Your task to perform on an android device: change the clock display to digital Image 0: 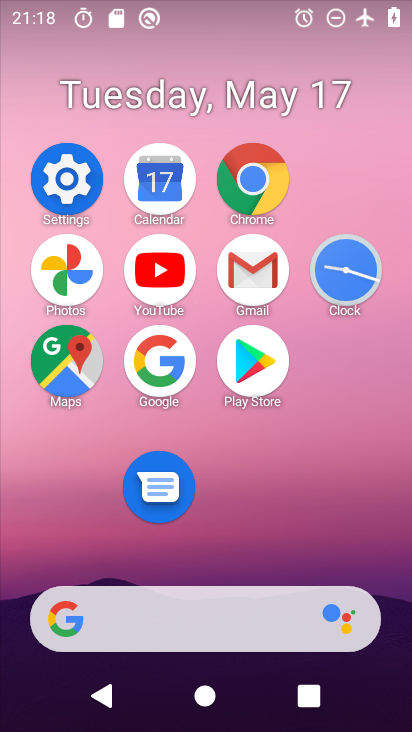
Step 0: click (349, 291)
Your task to perform on an android device: change the clock display to digital Image 1: 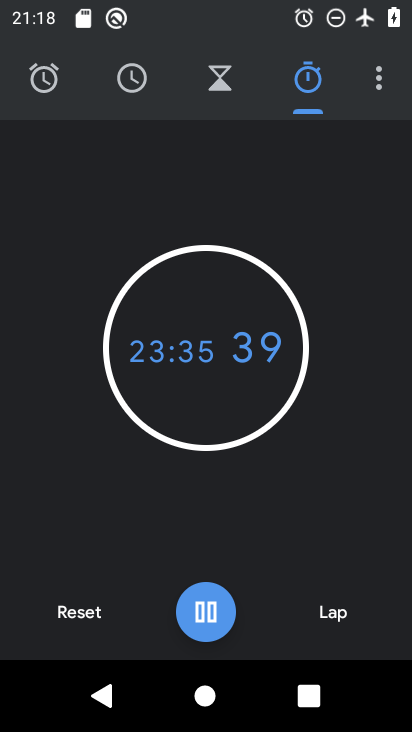
Step 1: click (381, 69)
Your task to perform on an android device: change the clock display to digital Image 2: 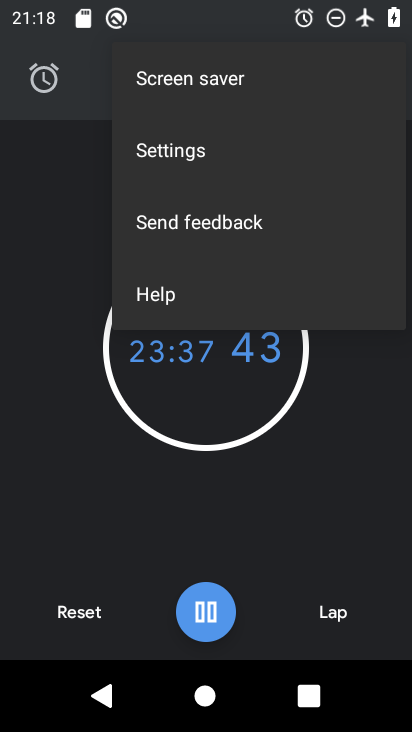
Step 2: click (188, 151)
Your task to perform on an android device: change the clock display to digital Image 3: 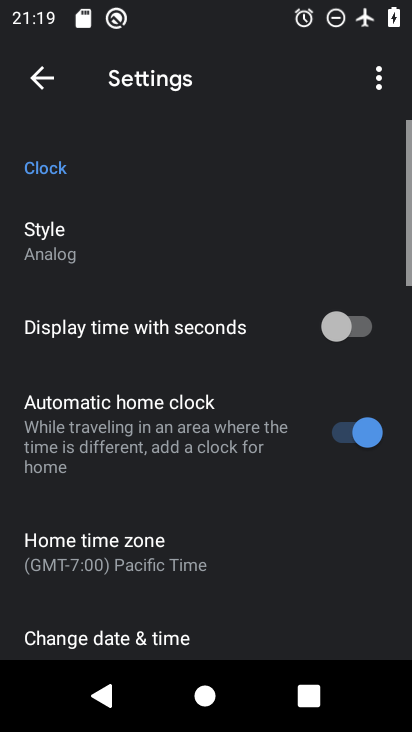
Step 3: click (48, 242)
Your task to perform on an android device: change the clock display to digital Image 4: 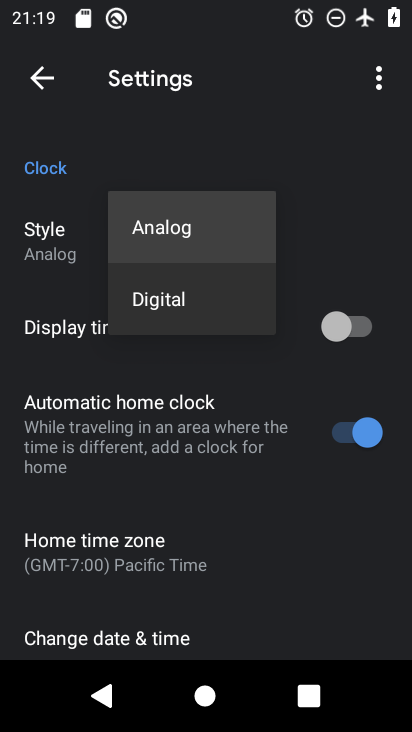
Step 4: click (197, 319)
Your task to perform on an android device: change the clock display to digital Image 5: 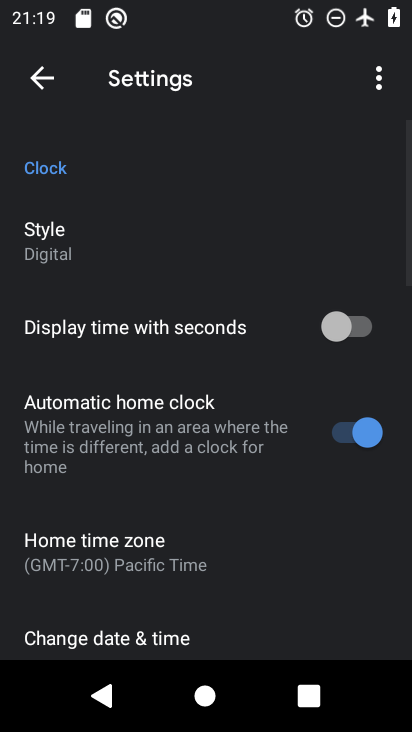
Step 5: task complete